Your task to perform on an android device: Go to location settings Image 0: 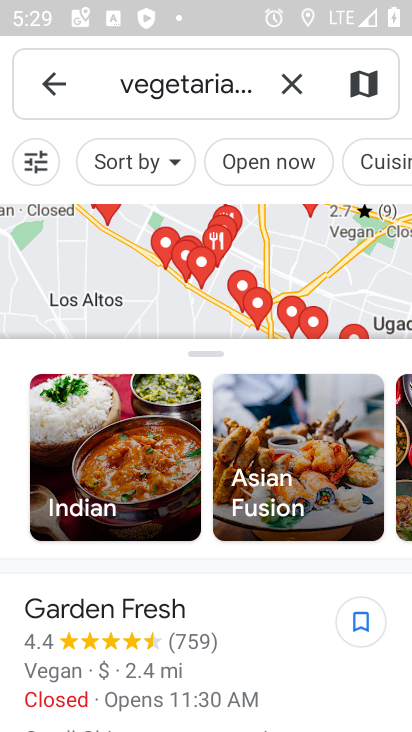
Step 0: press home button
Your task to perform on an android device: Go to location settings Image 1: 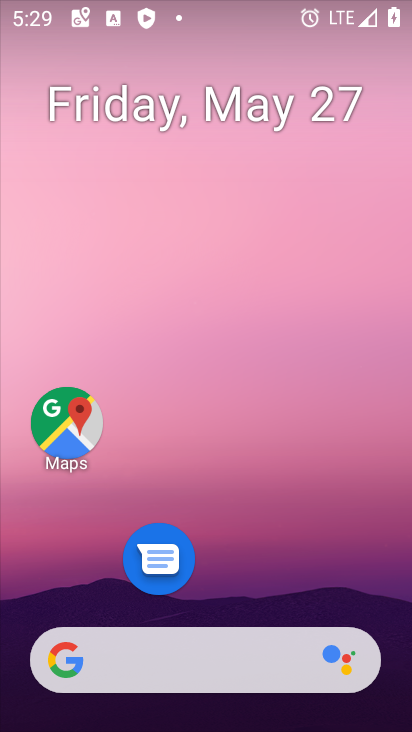
Step 1: drag from (219, 629) to (270, 26)
Your task to perform on an android device: Go to location settings Image 2: 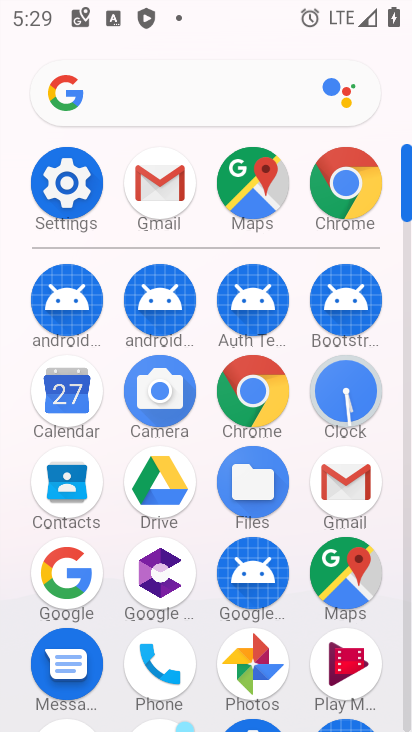
Step 2: click (69, 188)
Your task to perform on an android device: Go to location settings Image 3: 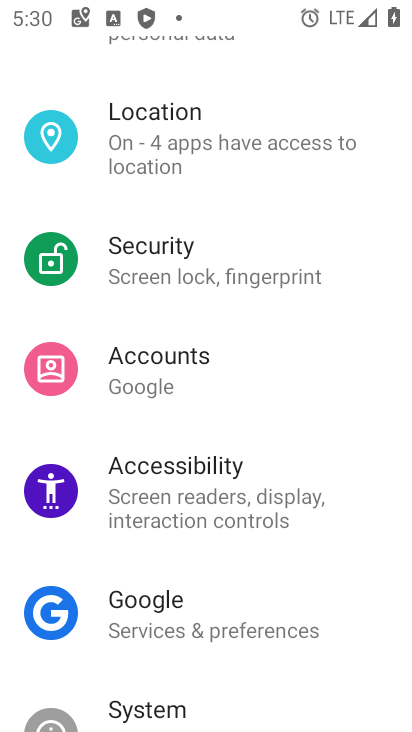
Step 3: click (178, 146)
Your task to perform on an android device: Go to location settings Image 4: 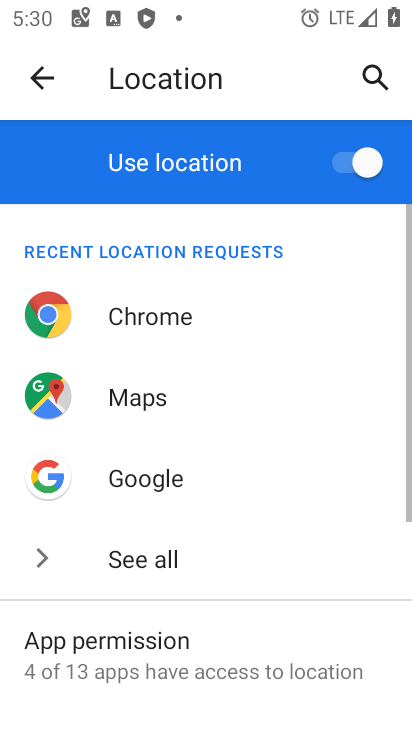
Step 4: task complete